Your task to perform on an android device: Turn off the flashlight Image 0: 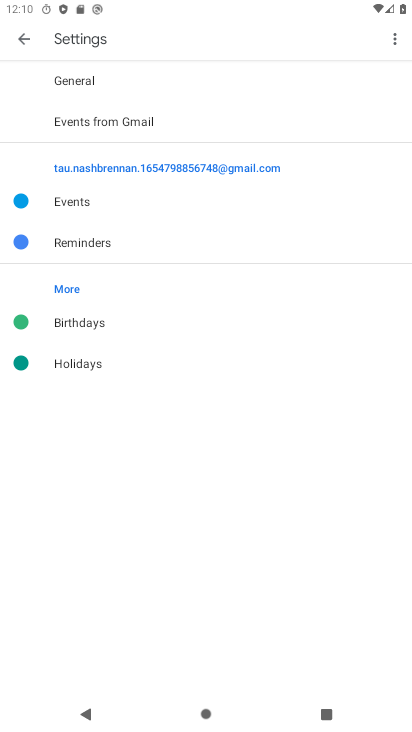
Step 0: press home button
Your task to perform on an android device: Turn off the flashlight Image 1: 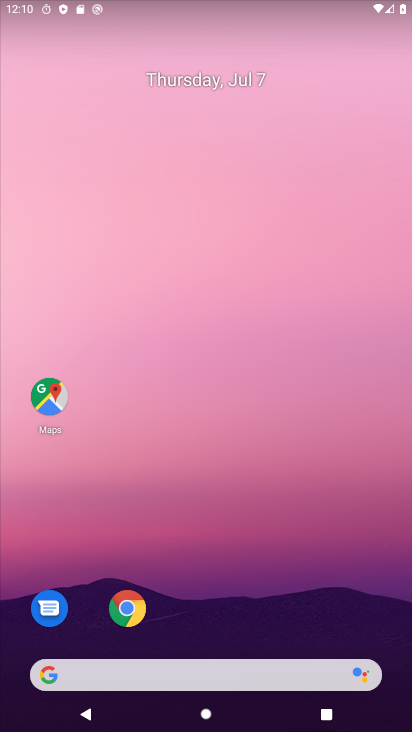
Step 1: task complete